Your task to perform on an android device: turn on javascript in the chrome app Image 0: 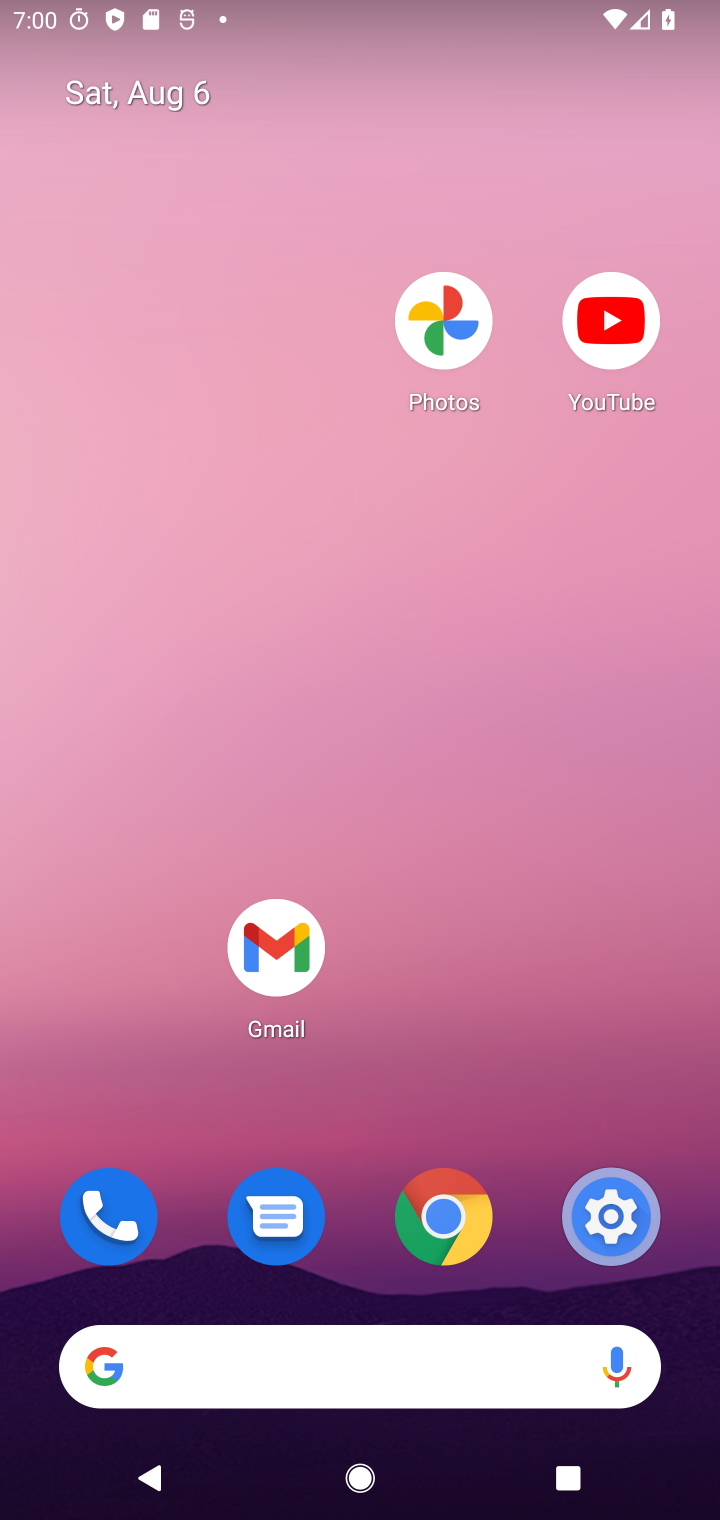
Step 0: drag from (498, 881) to (566, 151)
Your task to perform on an android device: turn on javascript in the chrome app Image 1: 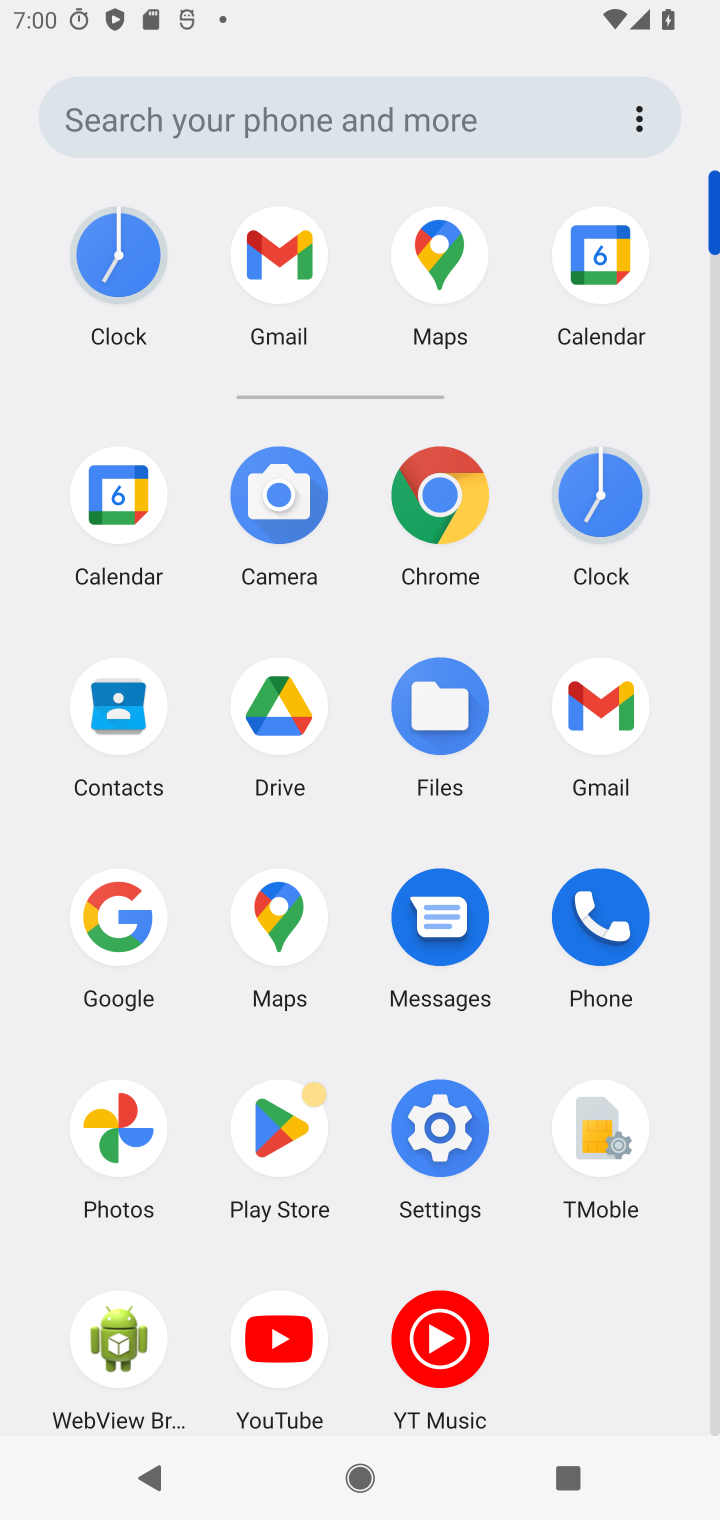
Step 1: click (425, 515)
Your task to perform on an android device: turn on javascript in the chrome app Image 2: 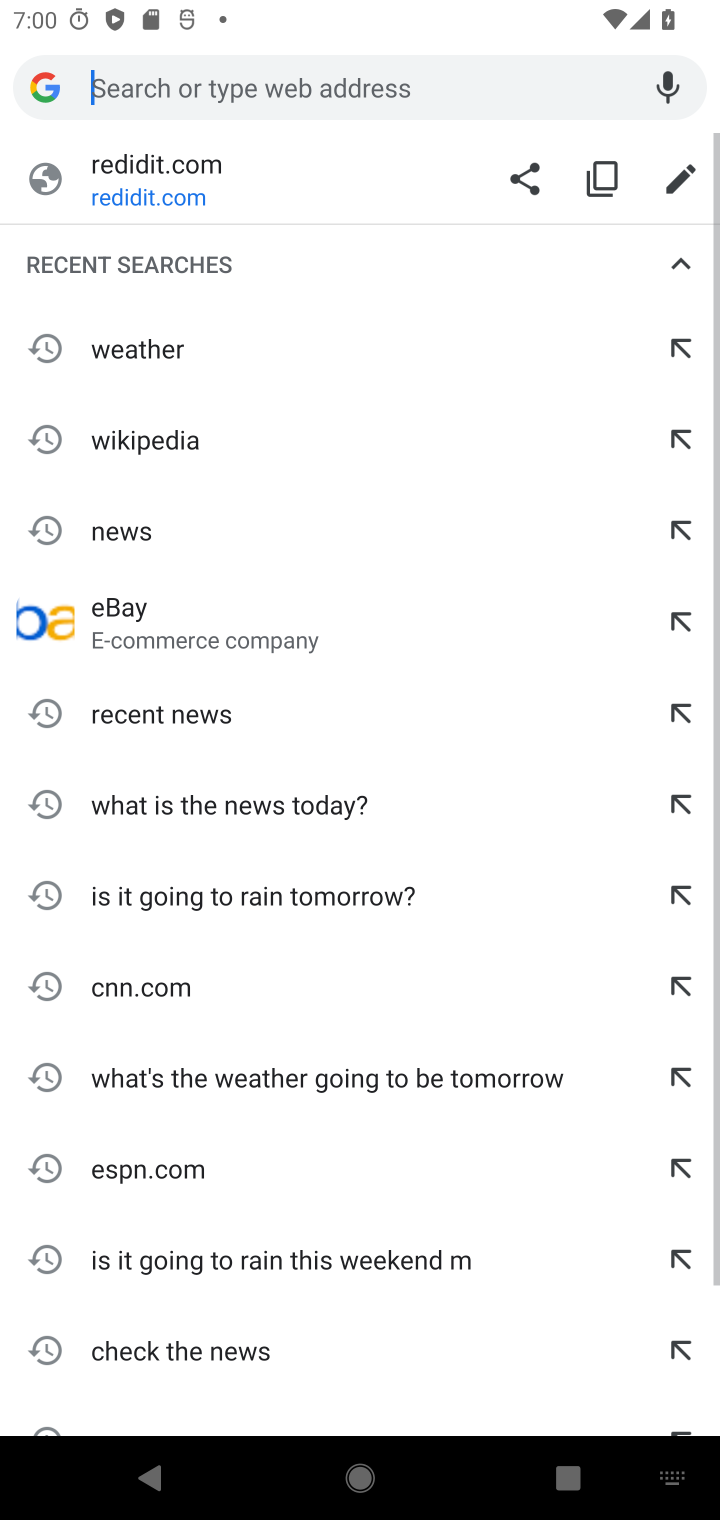
Step 2: press back button
Your task to perform on an android device: turn on javascript in the chrome app Image 3: 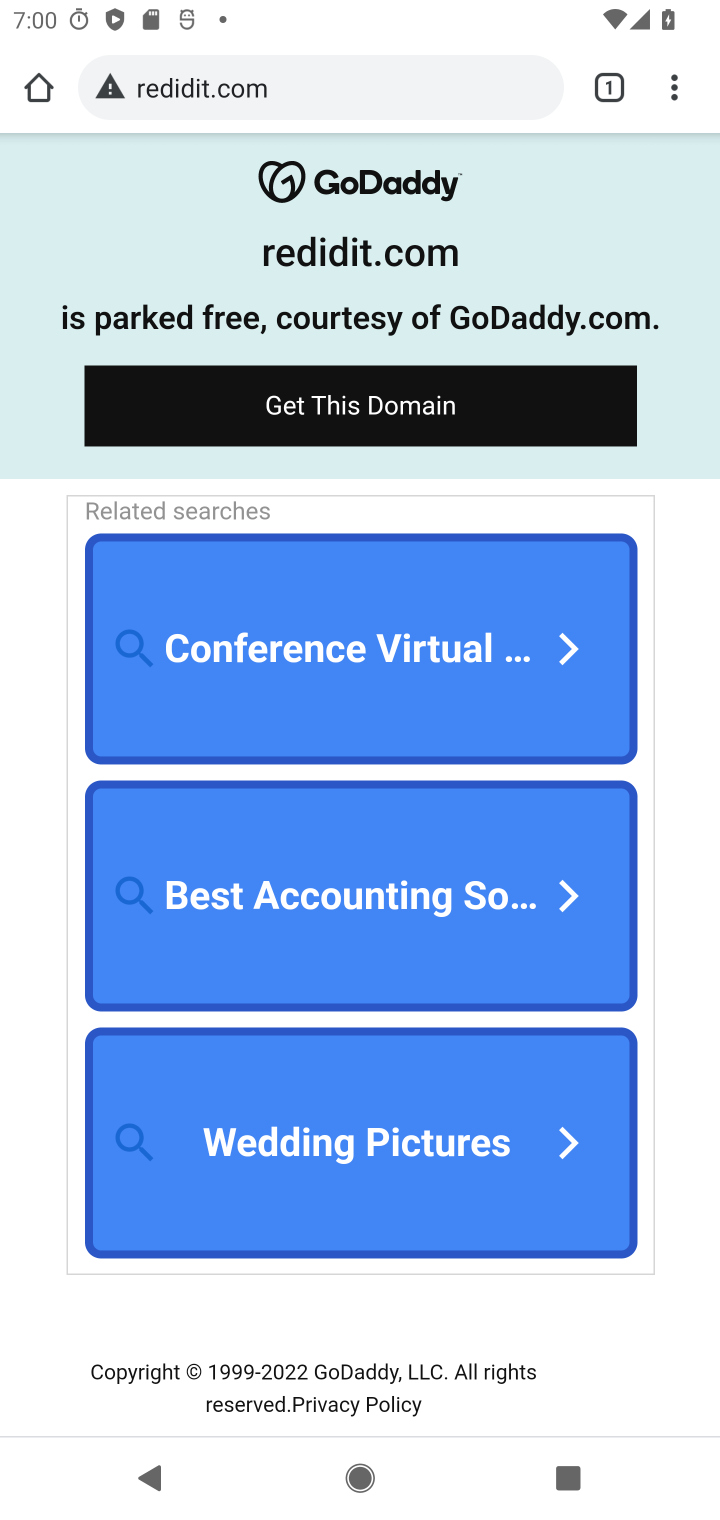
Step 3: drag from (682, 99) to (443, 1177)
Your task to perform on an android device: turn on javascript in the chrome app Image 4: 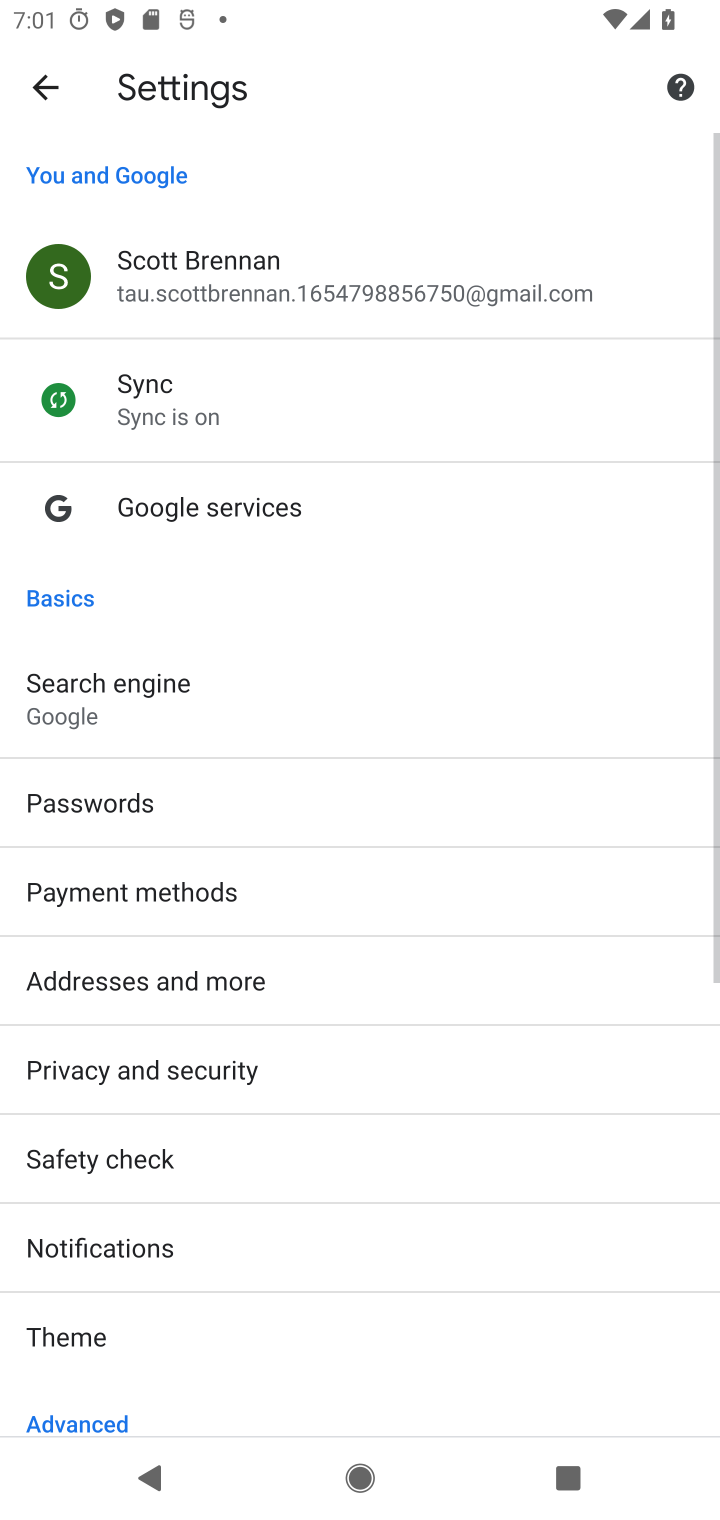
Step 4: drag from (432, 1331) to (527, 441)
Your task to perform on an android device: turn on javascript in the chrome app Image 5: 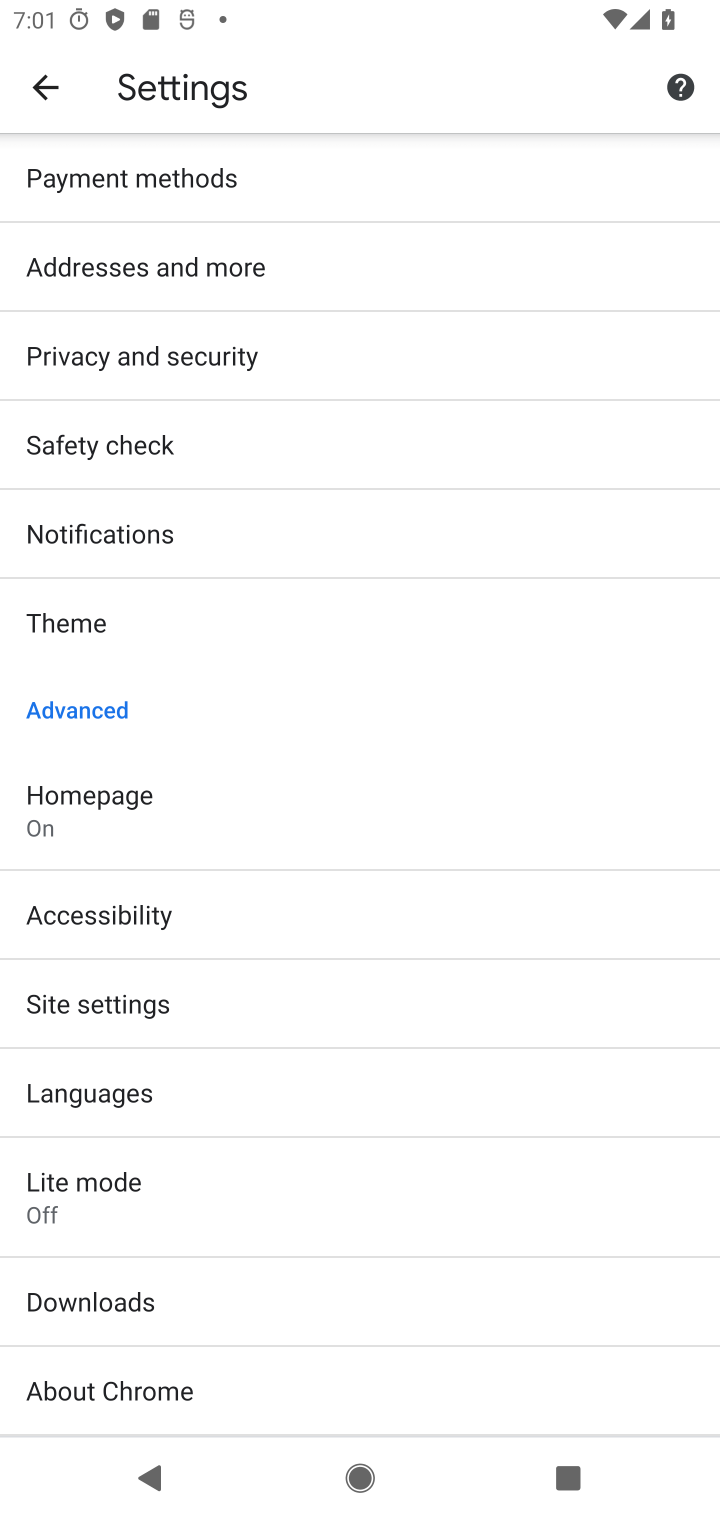
Step 5: click (125, 1019)
Your task to perform on an android device: turn on javascript in the chrome app Image 6: 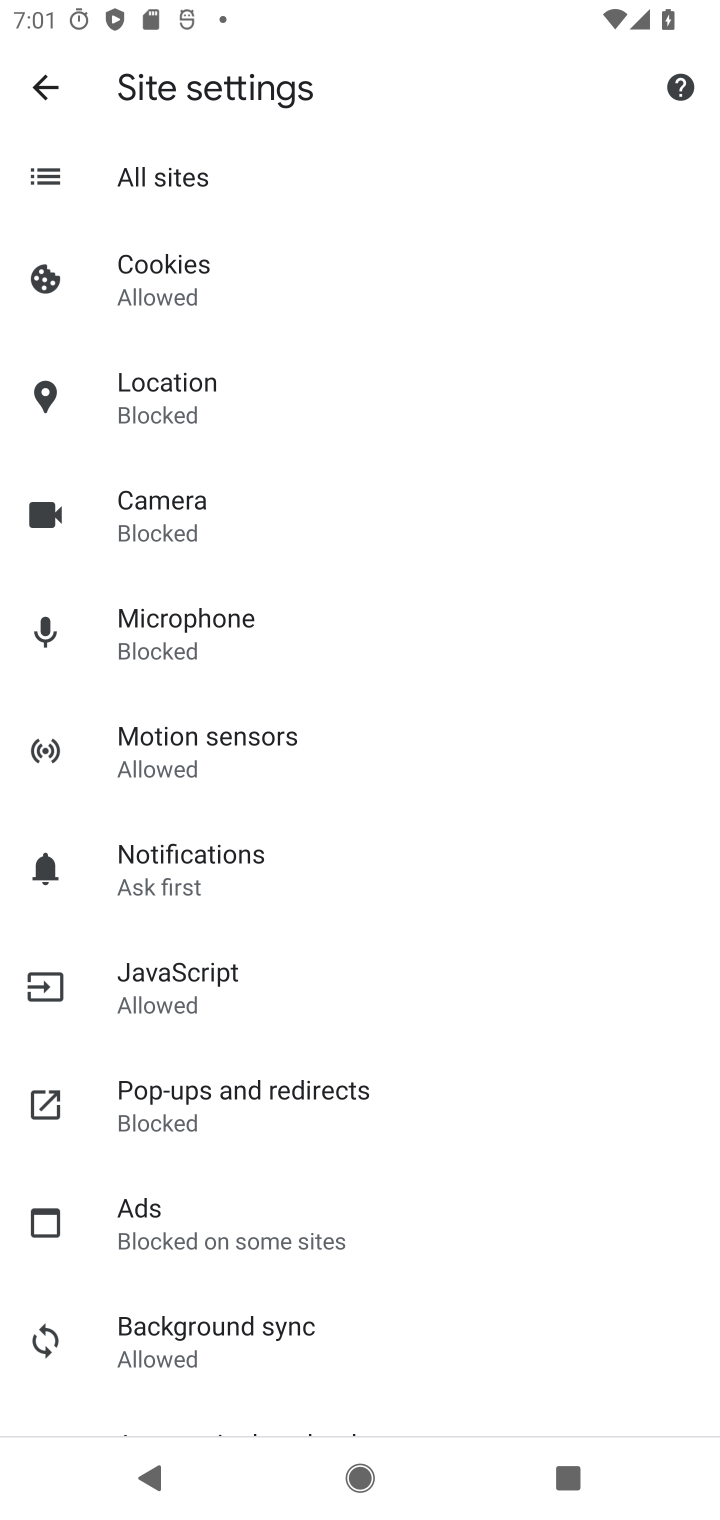
Step 6: click (202, 993)
Your task to perform on an android device: turn on javascript in the chrome app Image 7: 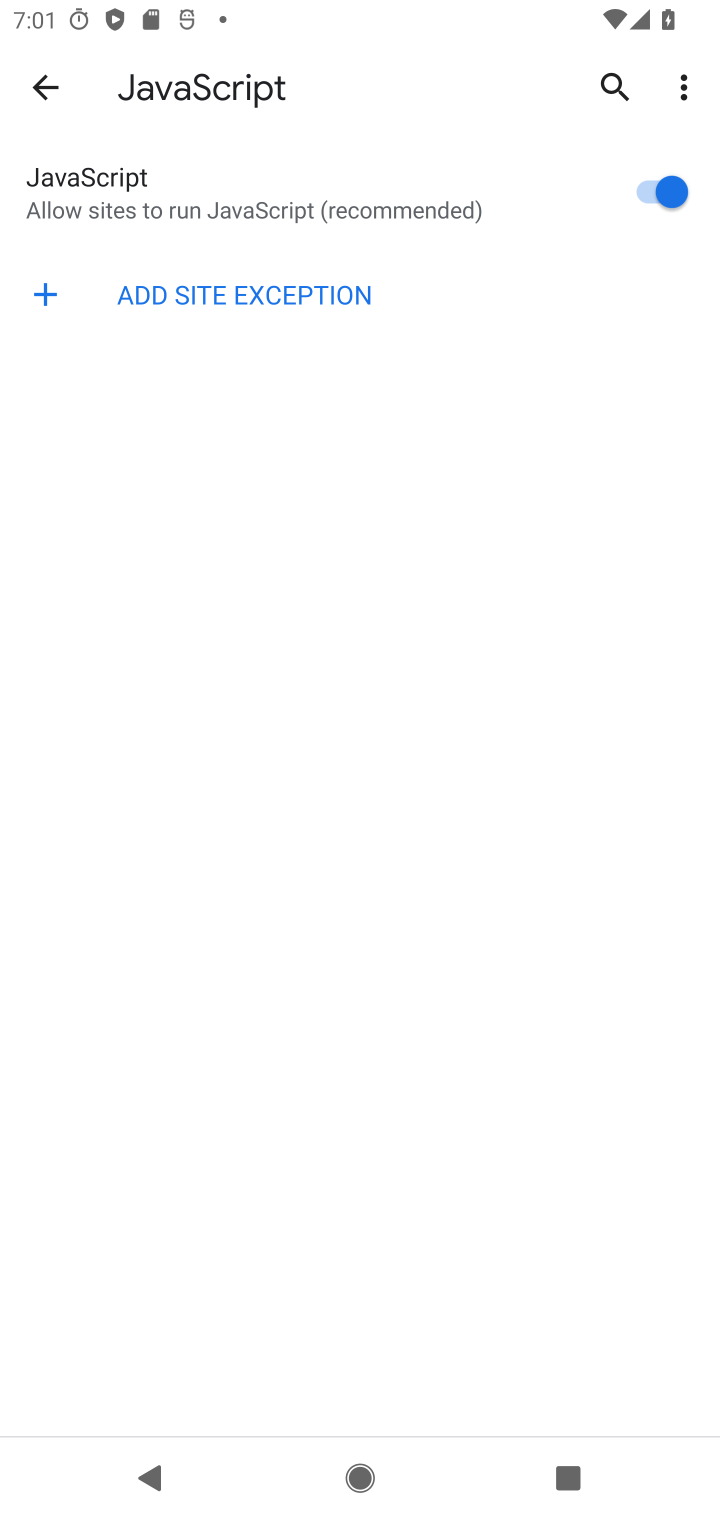
Step 7: task complete